Your task to perform on an android device: Do I have any events today? Image 0: 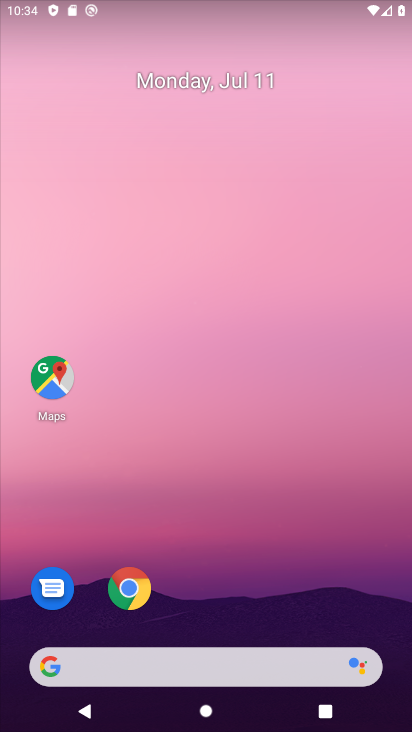
Step 0: drag from (223, 525) to (191, 187)
Your task to perform on an android device: Do I have any events today? Image 1: 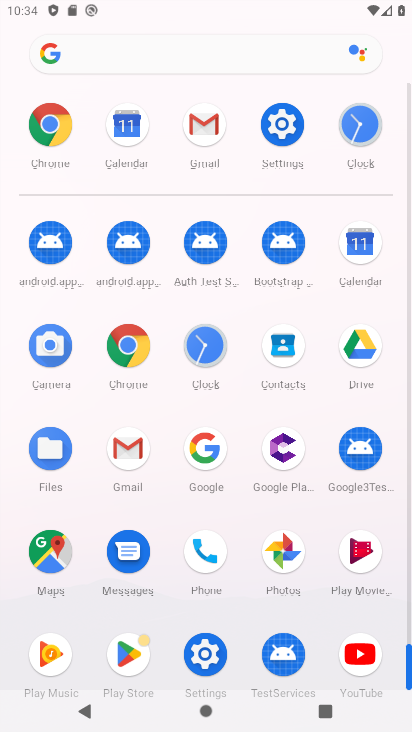
Step 1: click (125, 119)
Your task to perform on an android device: Do I have any events today? Image 2: 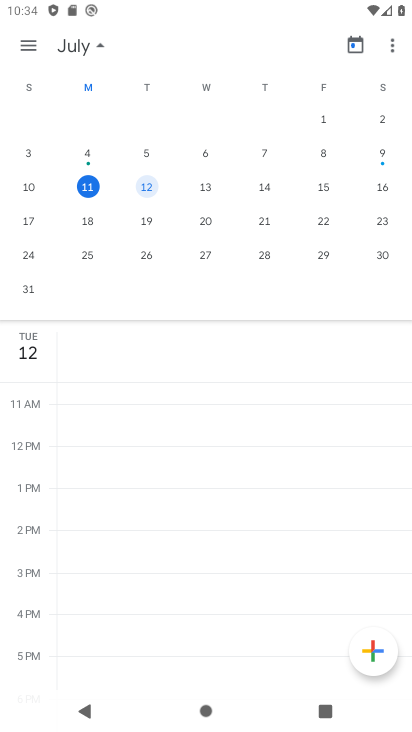
Step 2: click (89, 191)
Your task to perform on an android device: Do I have any events today? Image 3: 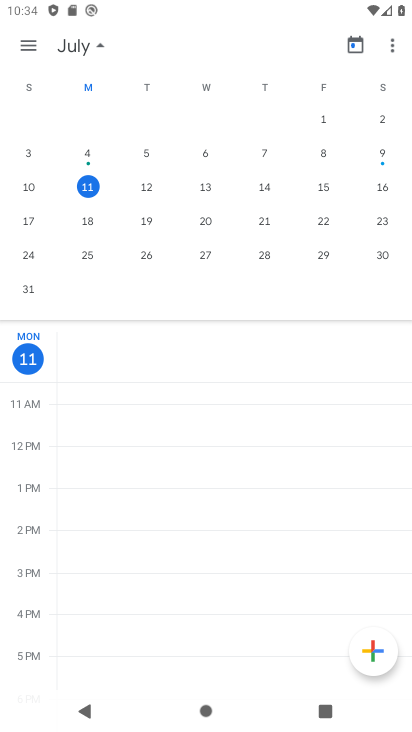
Step 3: task complete